Your task to perform on an android device: turn on translation in the chrome app Image 0: 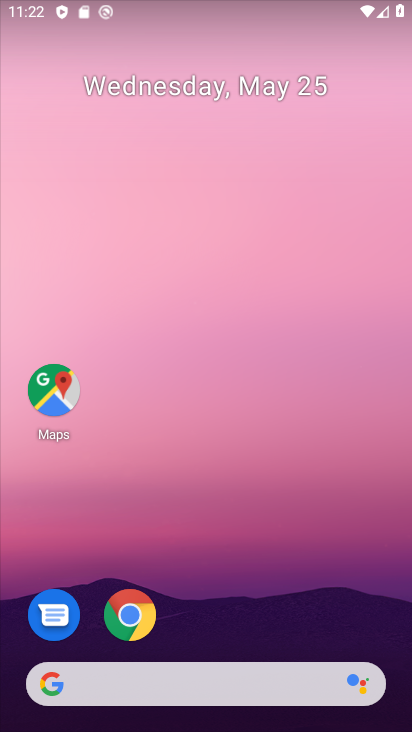
Step 0: drag from (375, 620) to (288, 119)
Your task to perform on an android device: turn on translation in the chrome app Image 1: 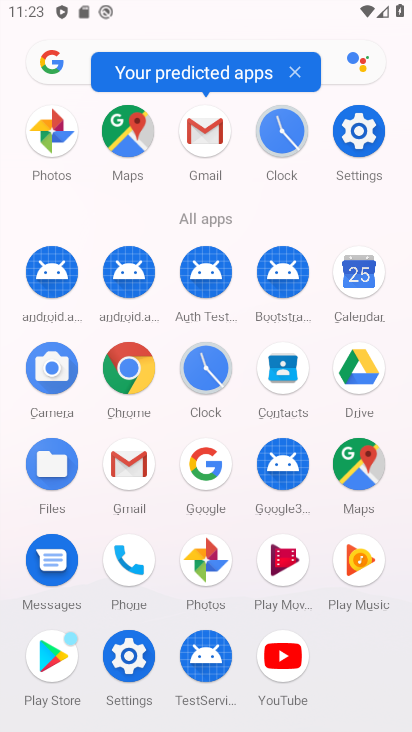
Step 1: click (120, 387)
Your task to perform on an android device: turn on translation in the chrome app Image 2: 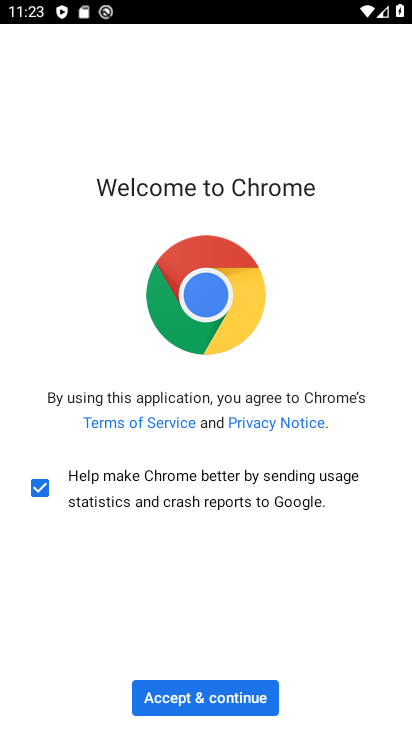
Step 2: click (232, 700)
Your task to perform on an android device: turn on translation in the chrome app Image 3: 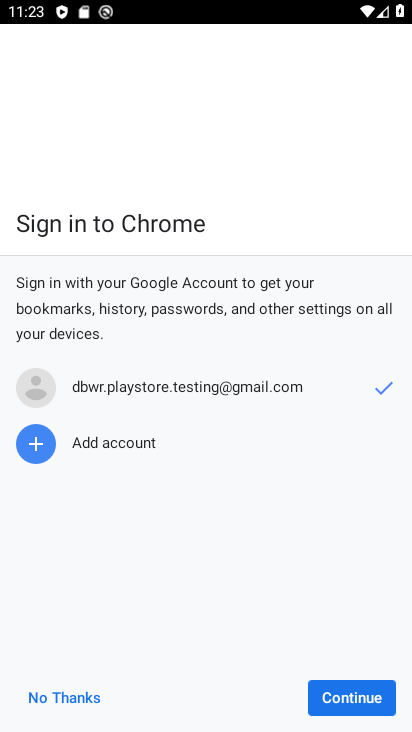
Step 3: click (361, 693)
Your task to perform on an android device: turn on translation in the chrome app Image 4: 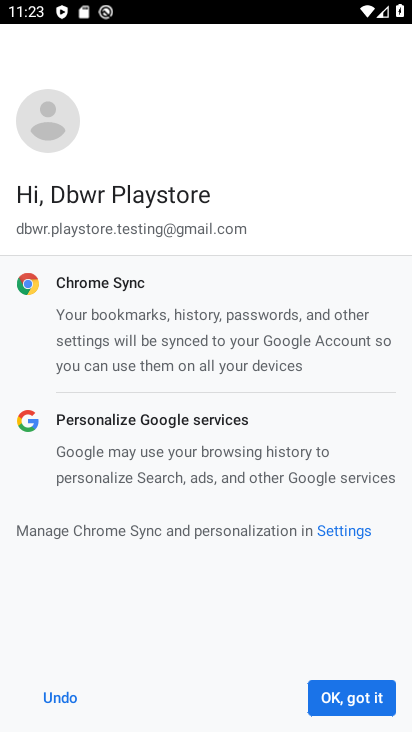
Step 4: click (361, 693)
Your task to perform on an android device: turn on translation in the chrome app Image 5: 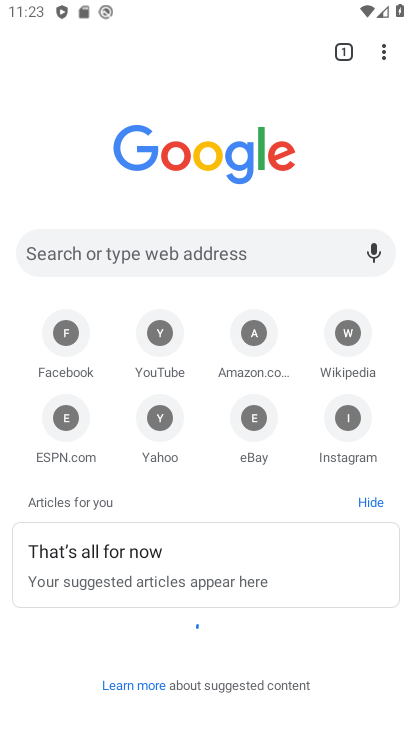
Step 5: click (389, 47)
Your task to perform on an android device: turn on translation in the chrome app Image 6: 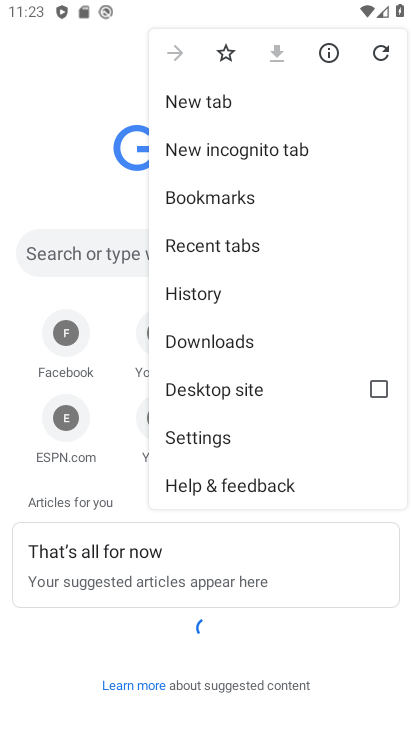
Step 6: click (270, 437)
Your task to perform on an android device: turn on translation in the chrome app Image 7: 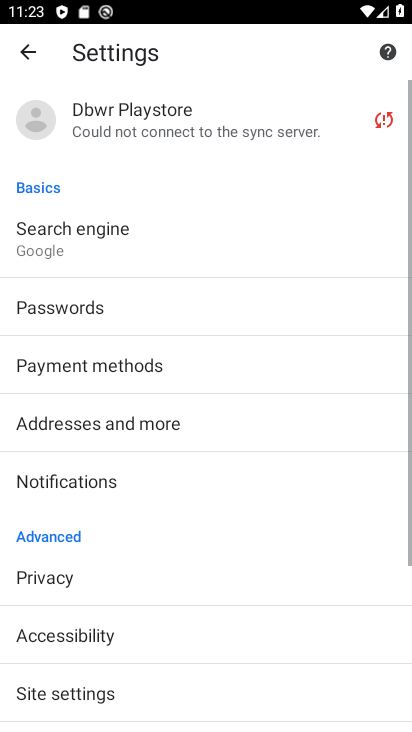
Step 7: drag from (71, 682) to (158, 172)
Your task to perform on an android device: turn on translation in the chrome app Image 8: 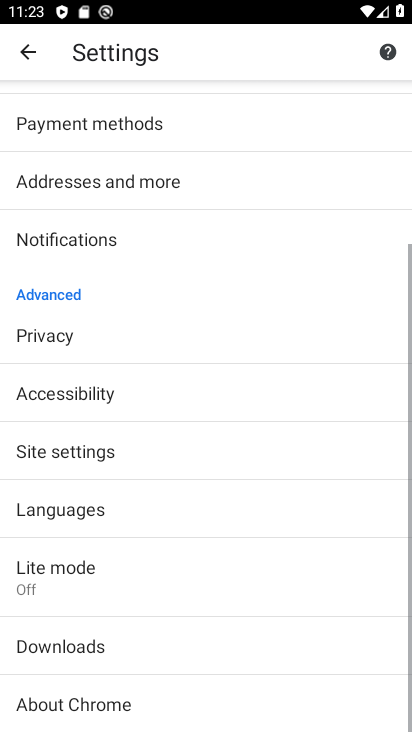
Step 8: click (112, 511)
Your task to perform on an android device: turn on translation in the chrome app Image 9: 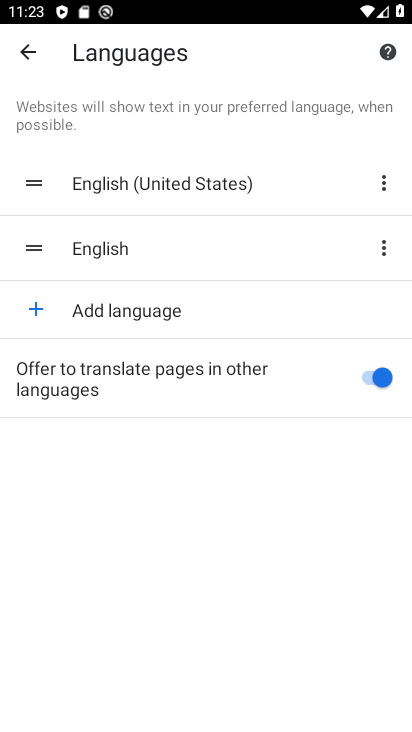
Step 9: task complete